Your task to perform on an android device: turn pop-ups on in chrome Image 0: 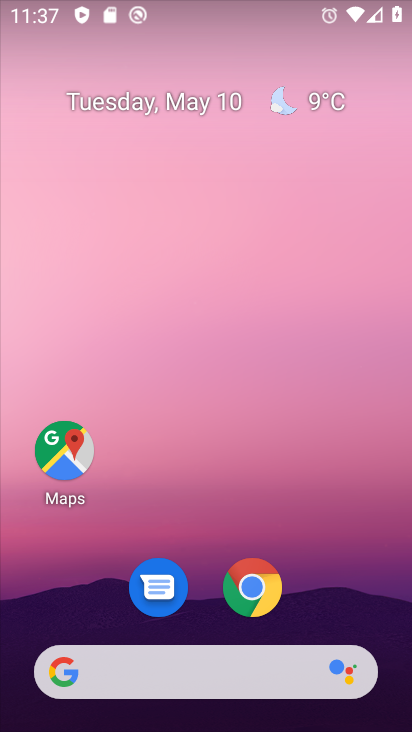
Step 0: click (252, 590)
Your task to perform on an android device: turn pop-ups on in chrome Image 1: 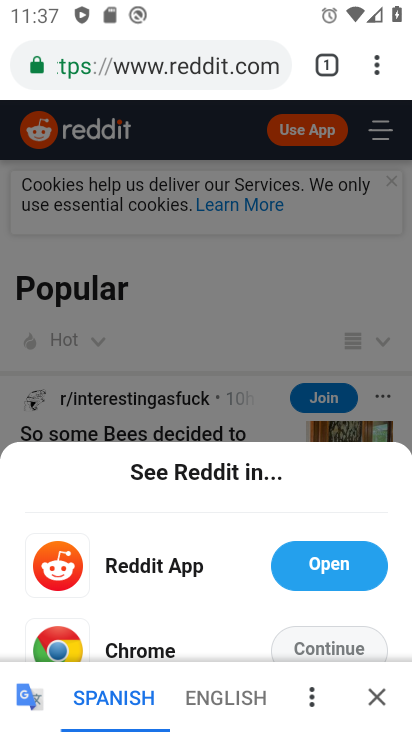
Step 1: drag from (376, 63) to (151, 631)
Your task to perform on an android device: turn pop-ups on in chrome Image 2: 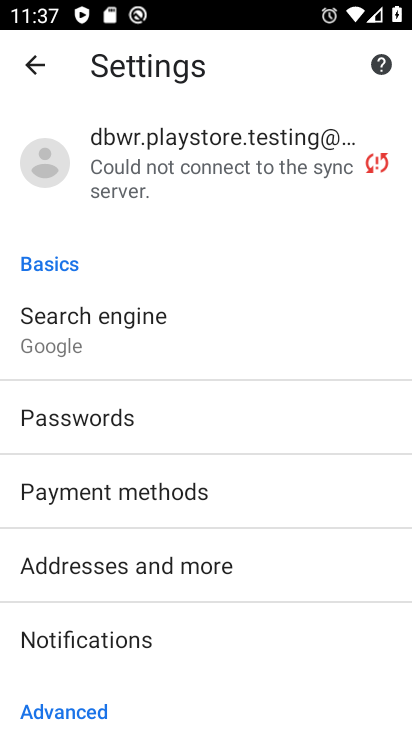
Step 2: drag from (183, 528) to (196, 283)
Your task to perform on an android device: turn pop-ups on in chrome Image 3: 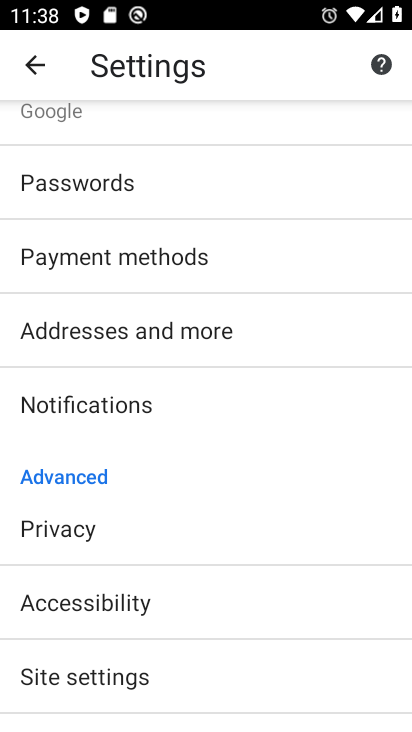
Step 3: drag from (169, 603) to (173, 349)
Your task to perform on an android device: turn pop-ups on in chrome Image 4: 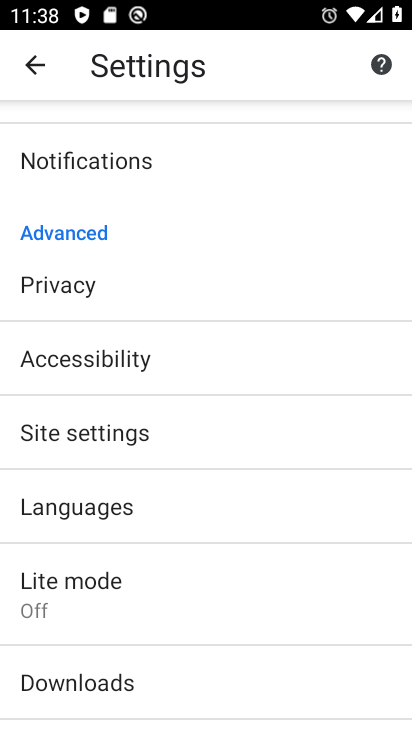
Step 4: click (117, 433)
Your task to perform on an android device: turn pop-ups on in chrome Image 5: 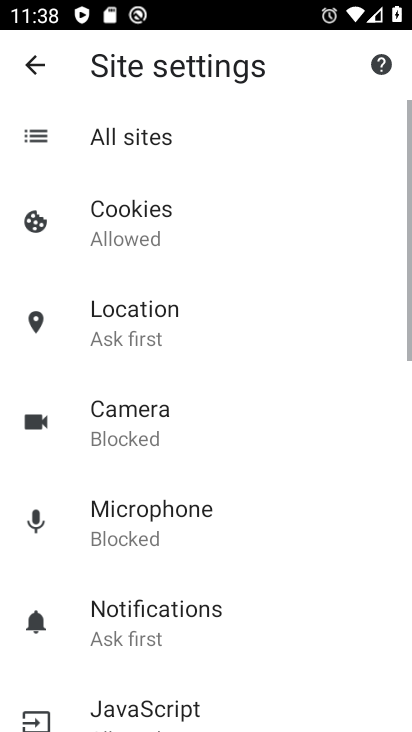
Step 5: drag from (245, 637) to (245, 325)
Your task to perform on an android device: turn pop-ups on in chrome Image 6: 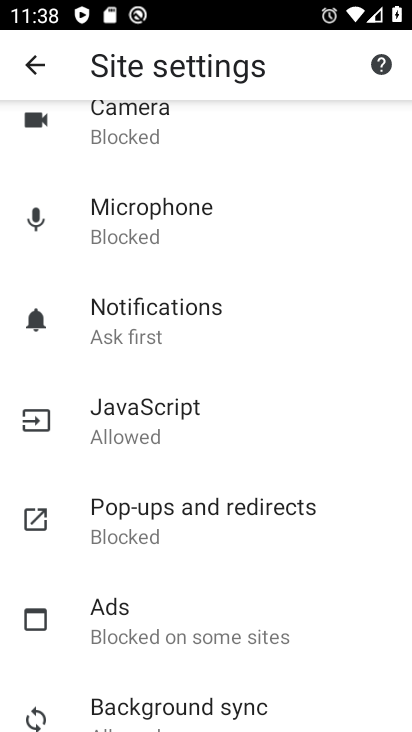
Step 6: click (124, 521)
Your task to perform on an android device: turn pop-ups on in chrome Image 7: 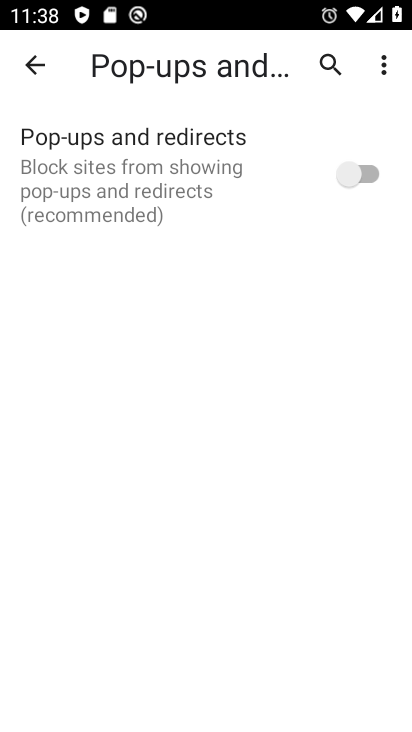
Step 7: click (371, 176)
Your task to perform on an android device: turn pop-ups on in chrome Image 8: 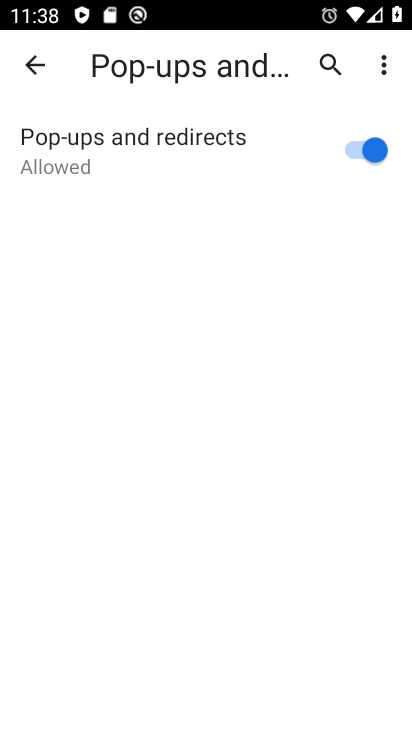
Step 8: task complete